Your task to perform on an android device: change the clock style Image 0: 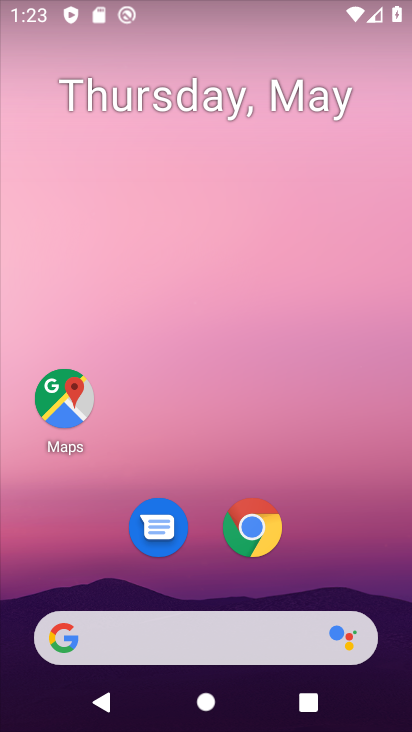
Step 0: drag from (184, 588) to (211, 124)
Your task to perform on an android device: change the clock style Image 1: 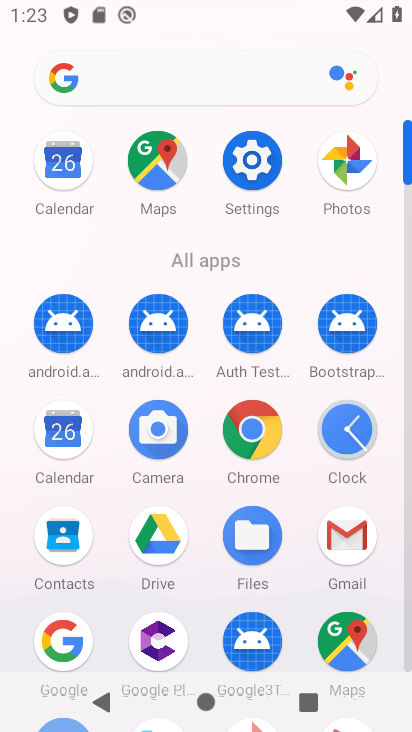
Step 1: click (339, 426)
Your task to perform on an android device: change the clock style Image 2: 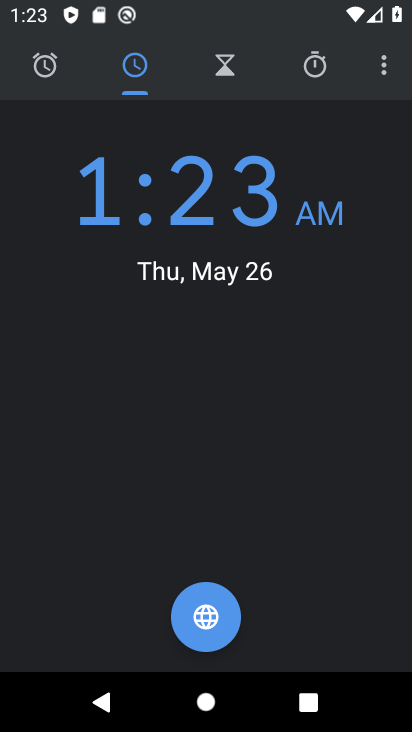
Step 2: click (379, 57)
Your task to perform on an android device: change the clock style Image 3: 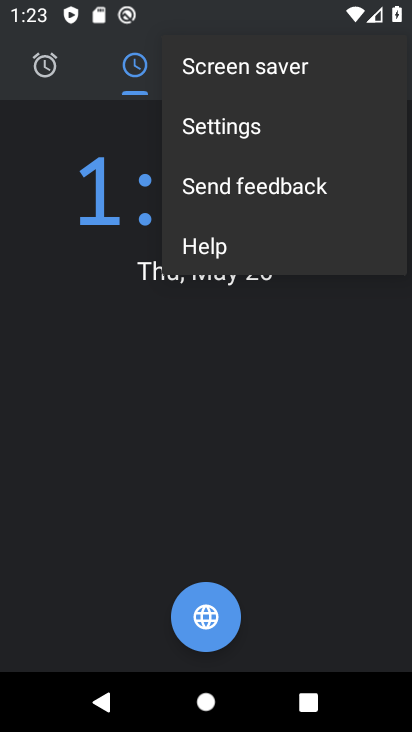
Step 3: click (217, 118)
Your task to perform on an android device: change the clock style Image 4: 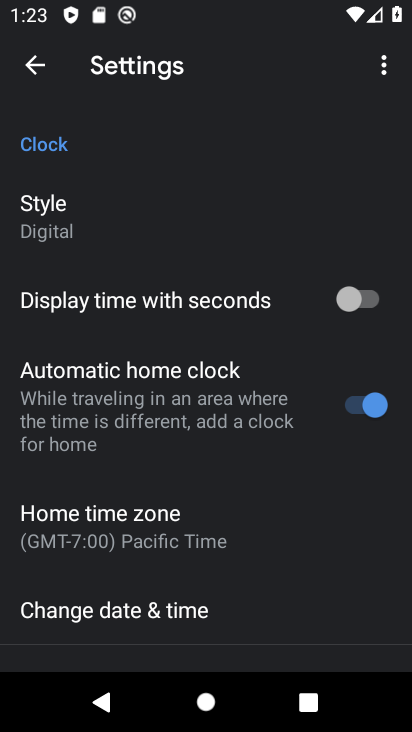
Step 4: click (57, 221)
Your task to perform on an android device: change the clock style Image 5: 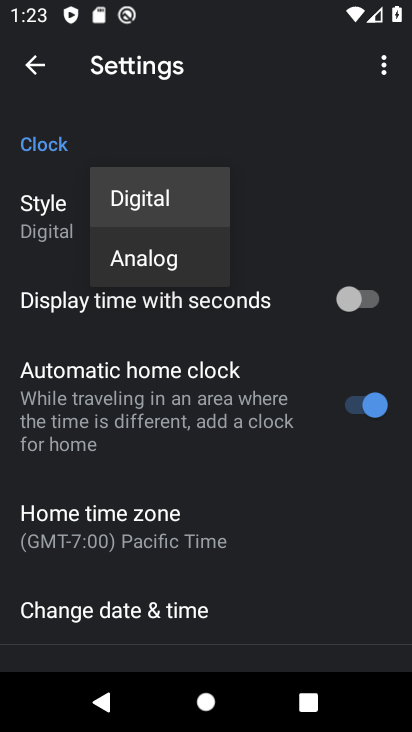
Step 5: click (184, 252)
Your task to perform on an android device: change the clock style Image 6: 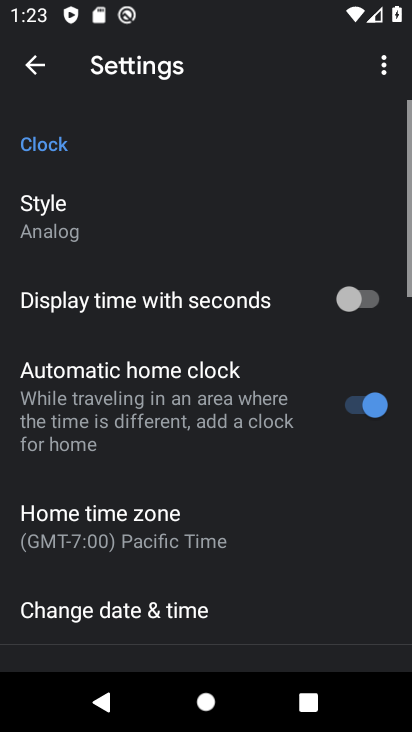
Step 6: task complete